Your task to perform on an android device: toggle improve location accuracy Image 0: 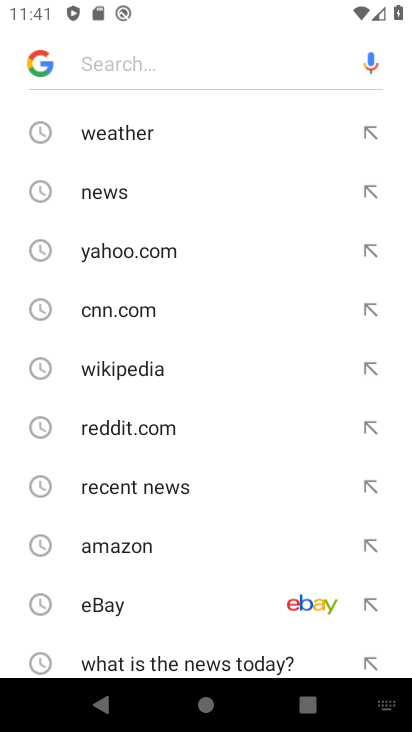
Step 0: press home button
Your task to perform on an android device: toggle improve location accuracy Image 1: 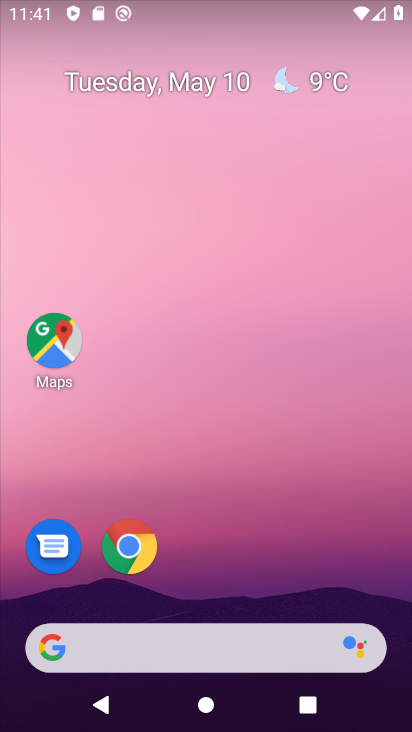
Step 1: drag from (197, 528) to (213, 98)
Your task to perform on an android device: toggle improve location accuracy Image 2: 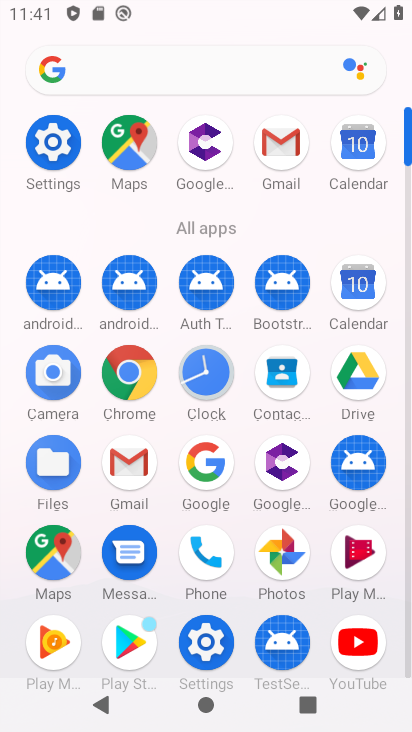
Step 2: click (56, 132)
Your task to perform on an android device: toggle improve location accuracy Image 3: 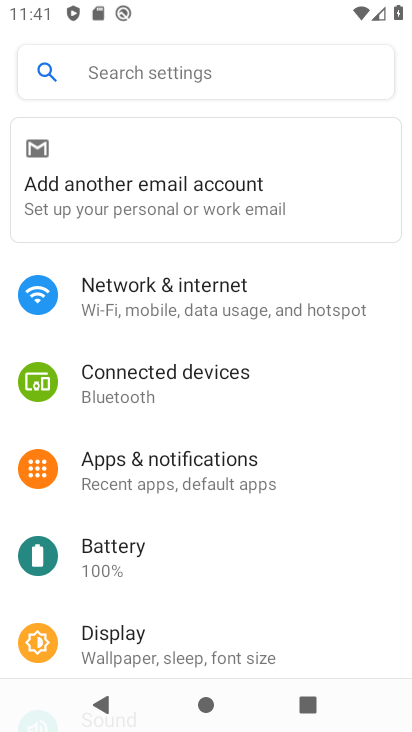
Step 3: drag from (181, 552) to (238, 242)
Your task to perform on an android device: toggle improve location accuracy Image 4: 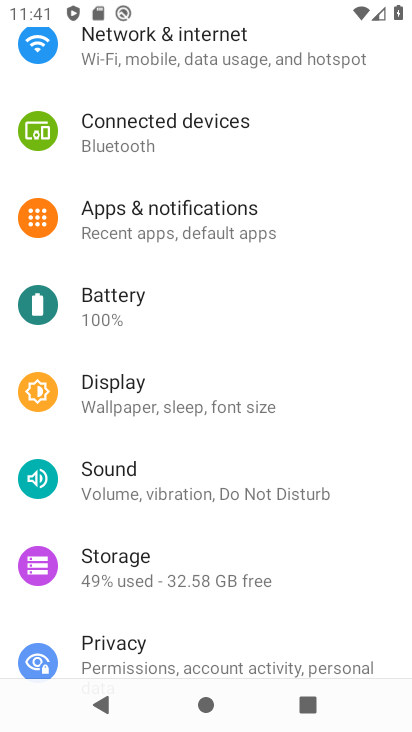
Step 4: drag from (184, 622) to (222, 376)
Your task to perform on an android device: toggle improve location accuracy Image 5: 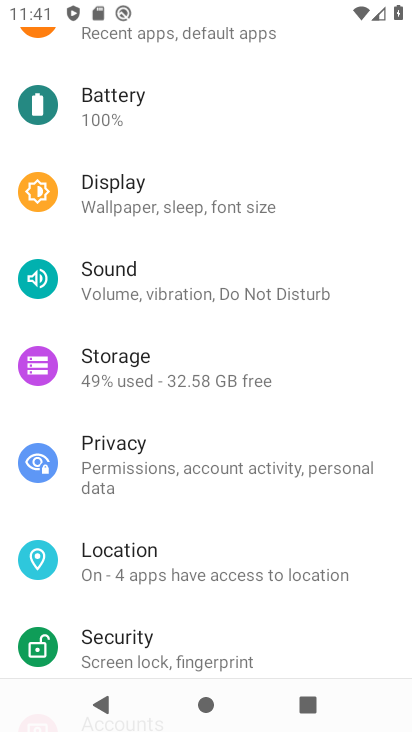
Step 5: click (201, 557)
Your task to perform on an android device: toggle improve location accuracy Image 6: 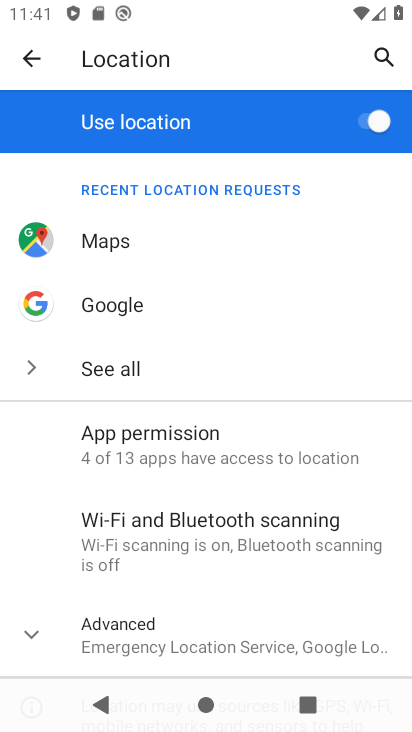
Step 6: click (184, 631)
Your task to perform on an android device: toggle improve location accuracy Image 7: 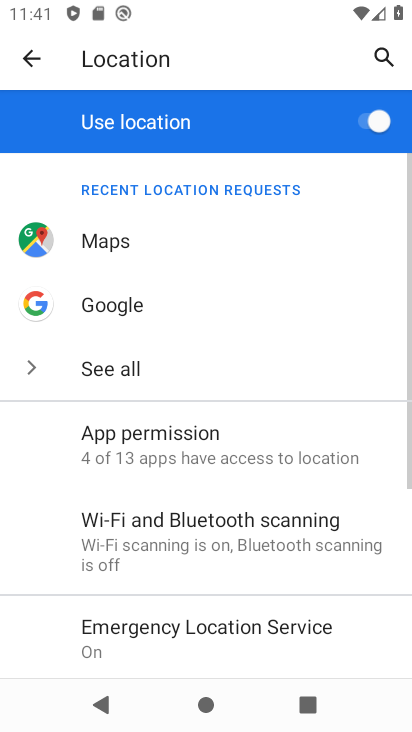
Step 7: drag from (199, 621) to (196, 307)
Your task to perform on an android device: toggle improve location accuracy Image 8: 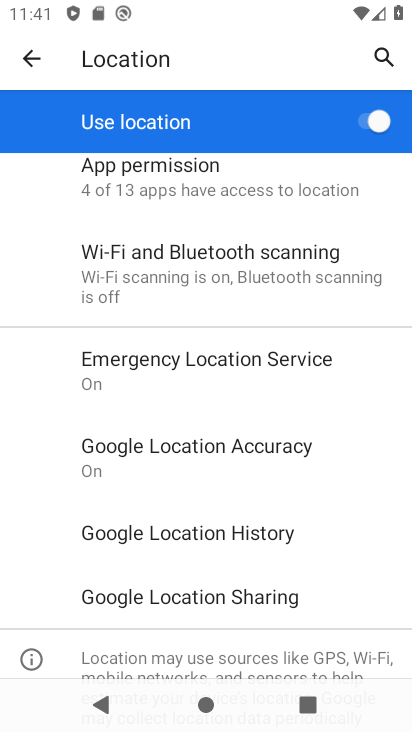
Step 8: click (196, 464)
Your task to perform on an android device: toggle improve location accuracy Image 9: 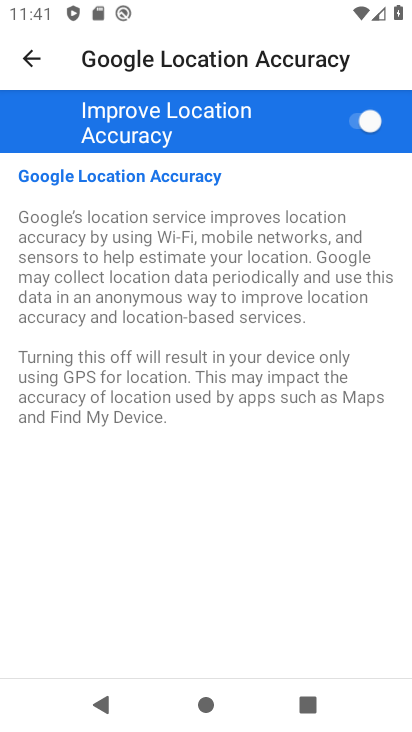
Step 9: click (362, 142)
Your task to perform on an android device: toggle improve location accuracy Image 10: 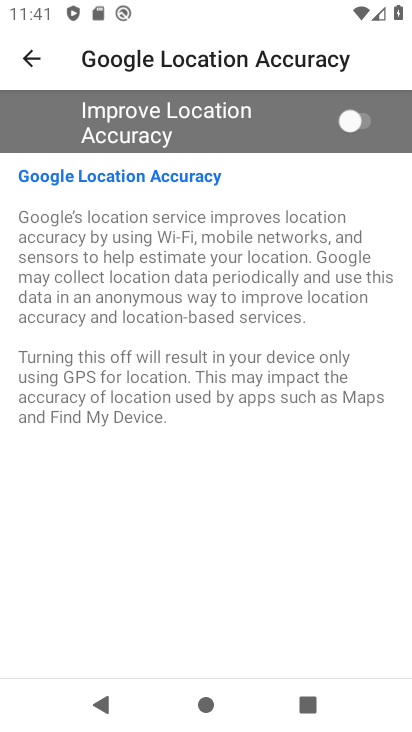
Step 10: task complete